Your task to perform on an android device: Set the phone to "Do not disturb". Image 0: 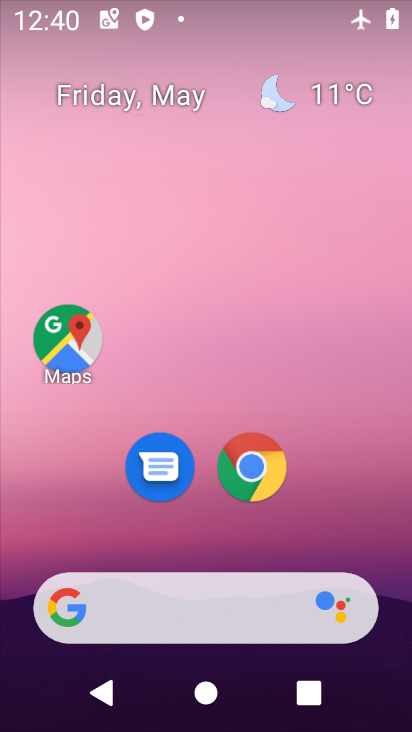
Step 0: drag from (349, 501) to (295, 181)
Your task to perform on an android device: Set the phone to "Do not disturb". Image 1: 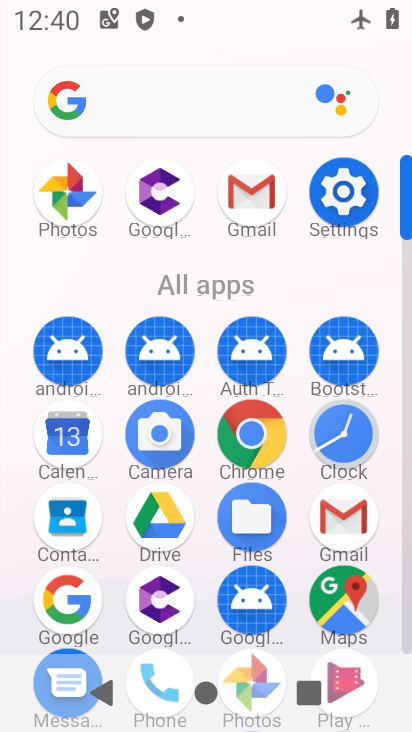
Step 1: click (327, 202)
Your task to perform on an android device: Set the phone to "Do not disturb". Image 2: 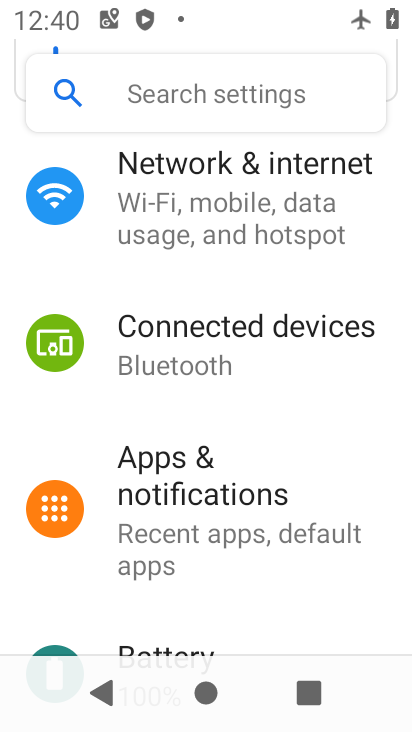
Step 2: drag from (329, 590) to (315, 292)
Your task to perform on an android device: Set the phone to "Do not disturb". Image 3: 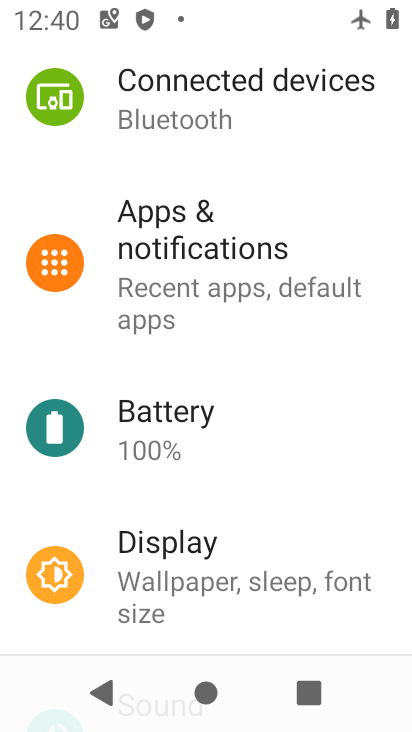
Step 3: drag from (332, 615) to (294, 351)
Your task to perform on an android device: Set the phone to "Do not disturb". Image 4: 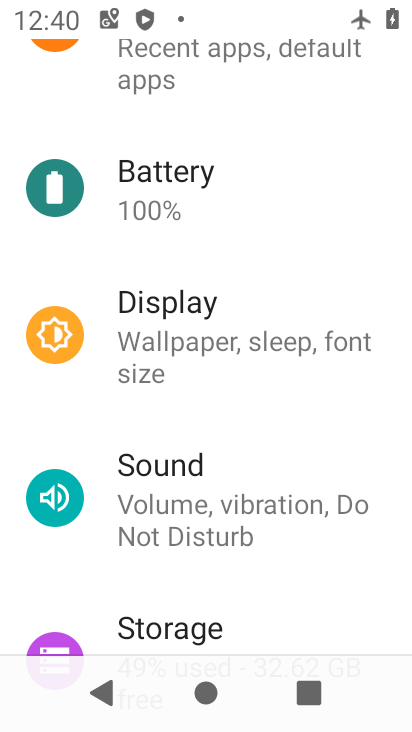
Step 4: click (252, 480)
Your task to perform on an android device: Set the phone to "Do not disturb". Image 5: 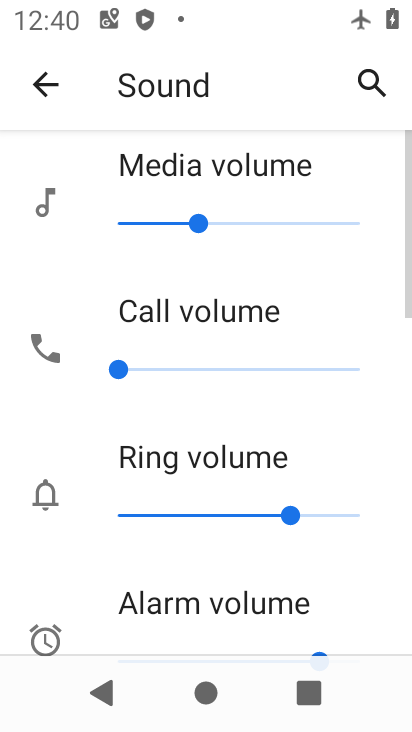
Step 5: drag from (252, 566) to (252, 254)
Your task to perform on an android device: Set the phone to "Do not disturb". Image 6: 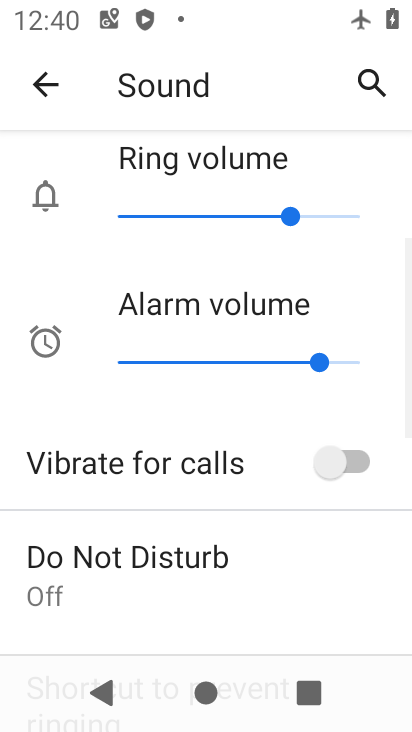
Step 6: drag from (220, 536) to (210, 355)
Your task to perform on an android device: Set the phone to "Do not disturb". Image 7: 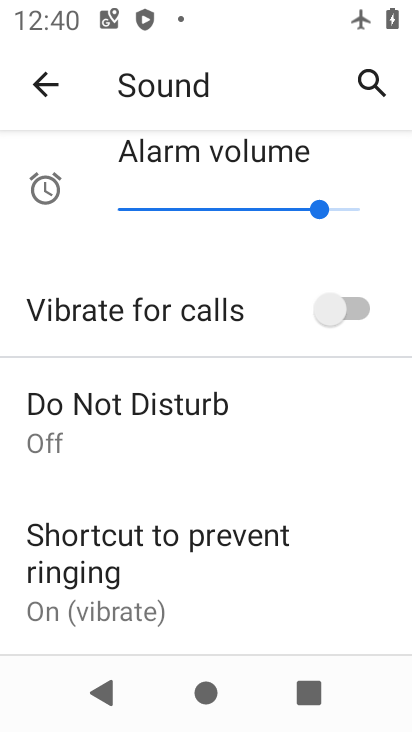
Step 7: click (105, 415)
Your task to perform on an android device: Set the phone to "Do not disturb". Image 8: 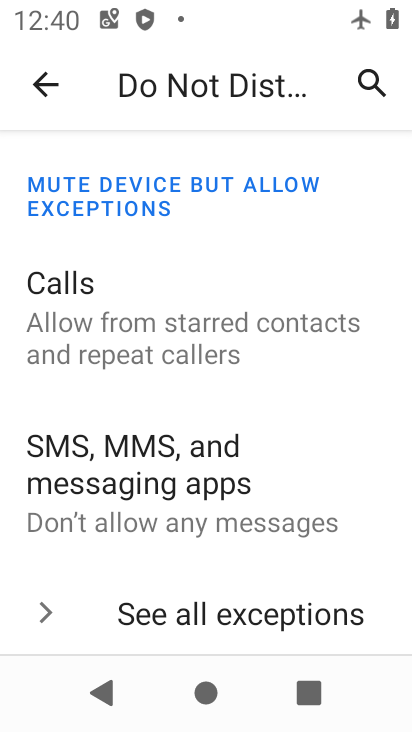
Step 8: drag from (157, 585) to (178, 211)
Your task to perform on an android device: Set the phone to "Do not disturb". Image 9: 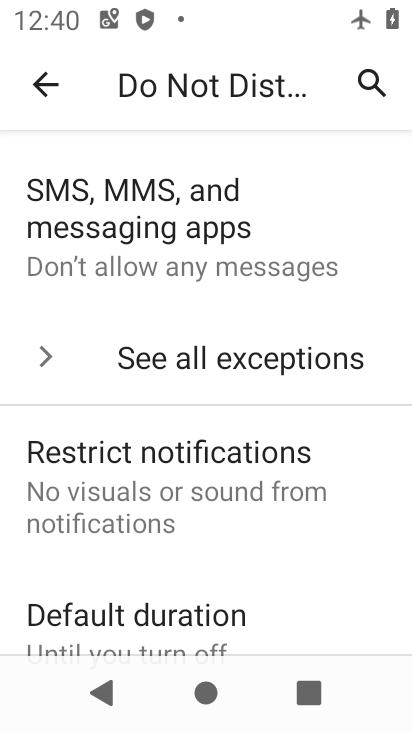
Step 9: drag from (209, 642) to (237, 249)
Your task to perform on an android device: Set the phone to "Do not disturb". Image 10: 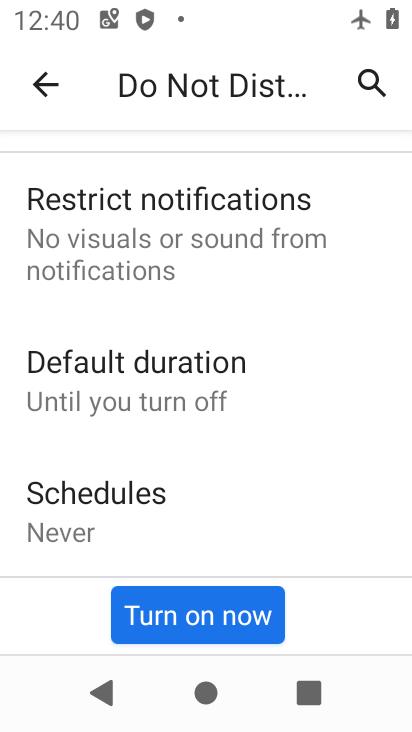
Step 10: click (251, 613)
Your task to perform on an android device: Set the phone to "Do not disturb". Image 11: 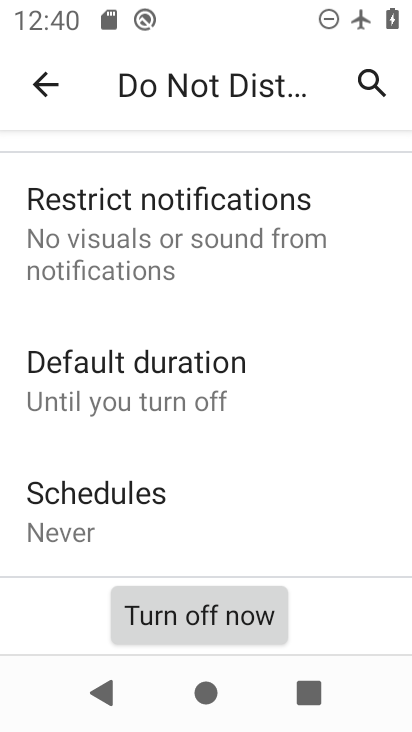
Step 11: task complete